Your task to perform on an android device: Go to accessibility settings Image 0: 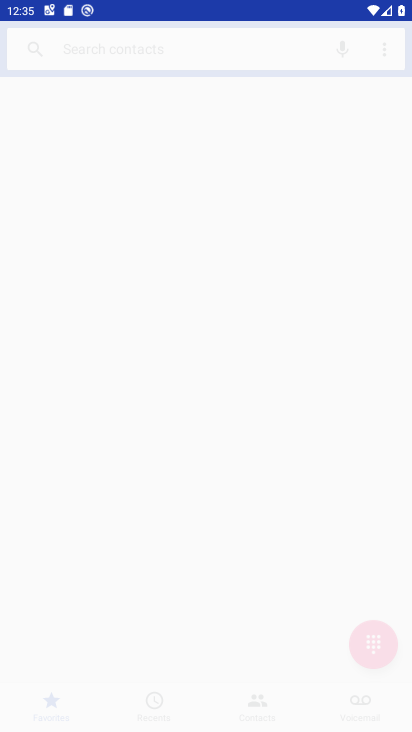
Step 0: drag from (175, 626) to (273, 242)
Your task to perform on an android device: Go to accessibility settings Image 1: 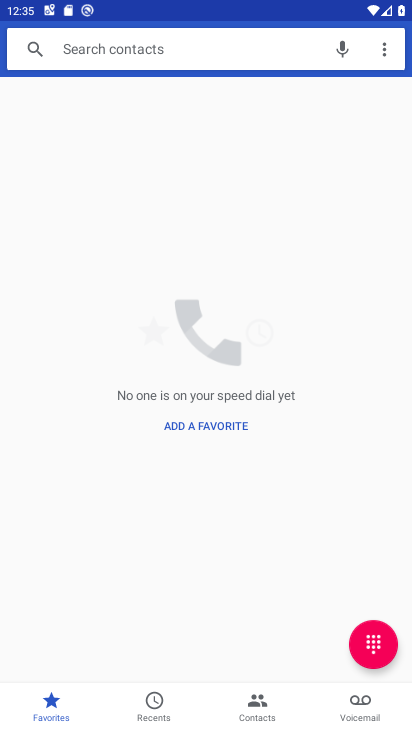
Step 1: press home button
Your task to perform on an android device: Go to accessibility settings Image 2: 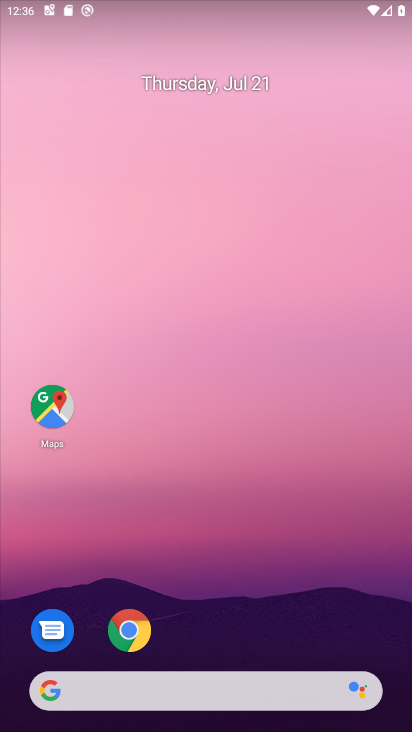
Step 2: drag from (192, 625) to (298, 55)
Your task to perform on an android device: Go to accessibility settings Image 3: 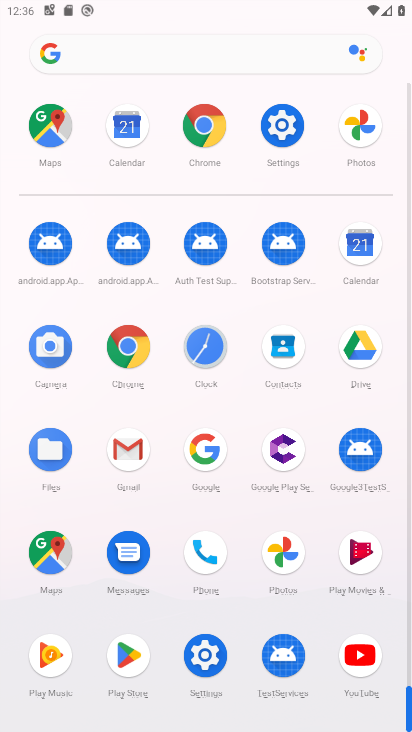
Step 3: click (203, 657)
Your task to perform on an android device: Go to accessibility settings Image 4: 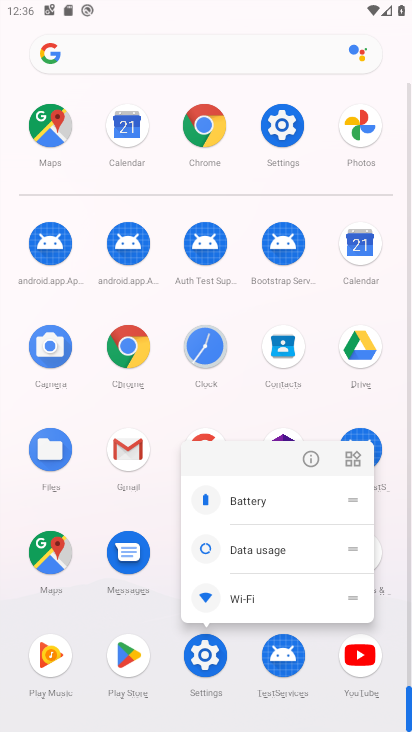
Step 4: click (306, 454)
Your task to perform on an android device: Go to accessibility settings Image 5: 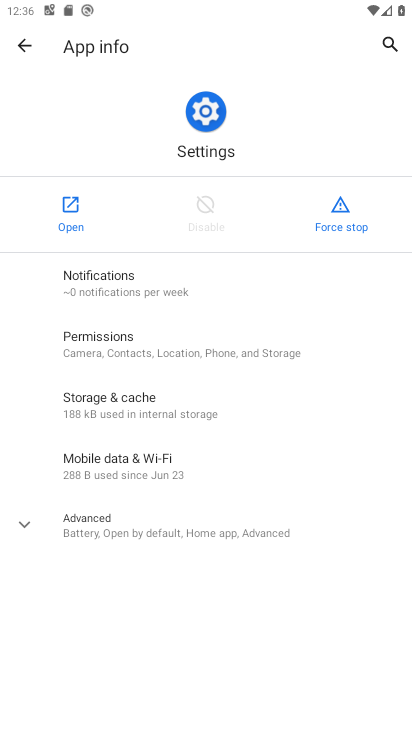
Step 5: click (73, 231)
Your task to perform on an android device: Go to accessibility settings Image 6: 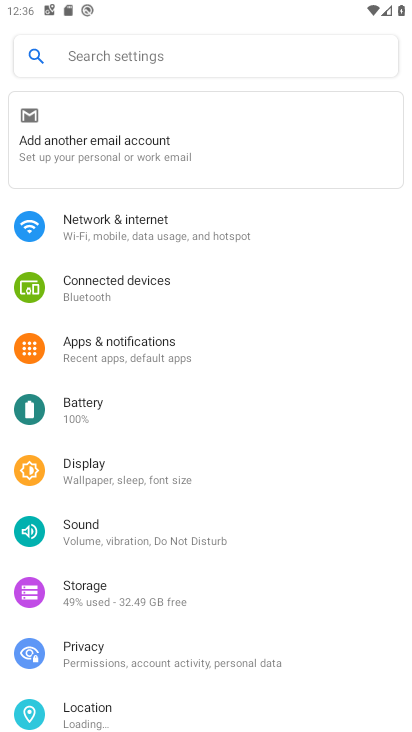
Step 6: drag from (185, 588) to (248, 204)
Your task to perform on an android device: Go to accessibility settings Image 7: 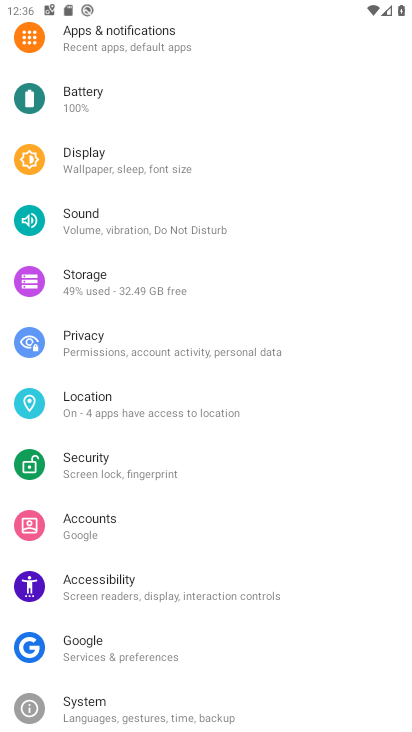
Step 7: click (127, 594)
Your task to perform on an android device: Go to accessibility settings Image 8: 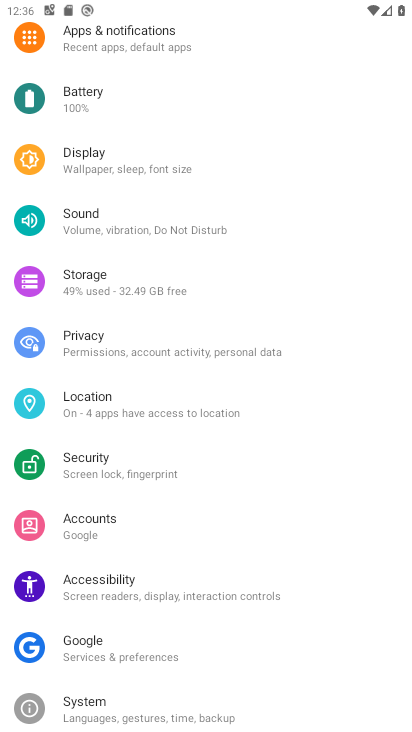
Step 8: click (127, 594)
Your task to perform on an android device: Go to accessibility settings Image 9: 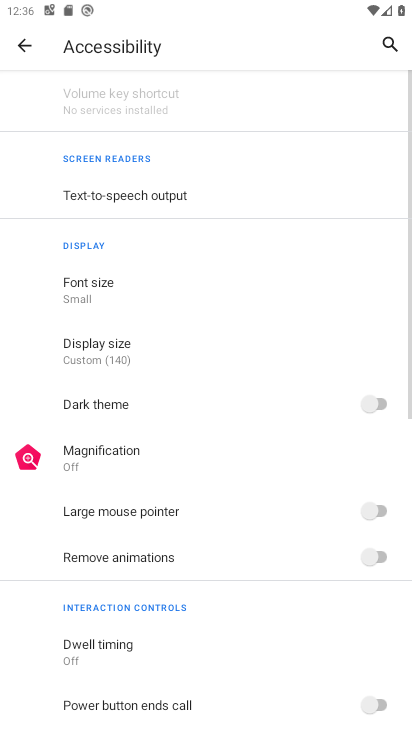
Step 9: task complete